Your task to perform on an android device: Add logitech g pro to the cart on amazon Image 0: 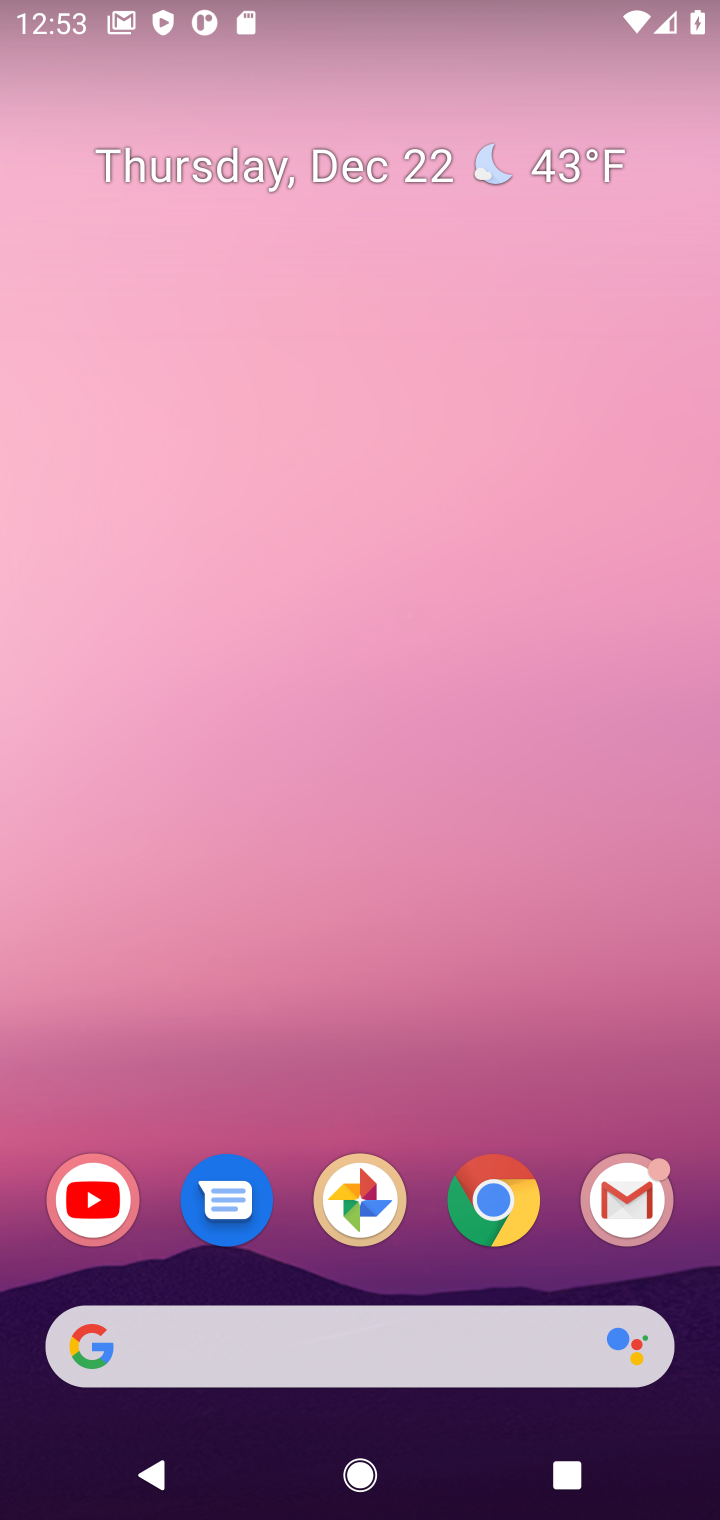
Step 0: click (489, 1210)
Your task to perform on an android device: Add logitech g pro to the cart on amazon Image 1: 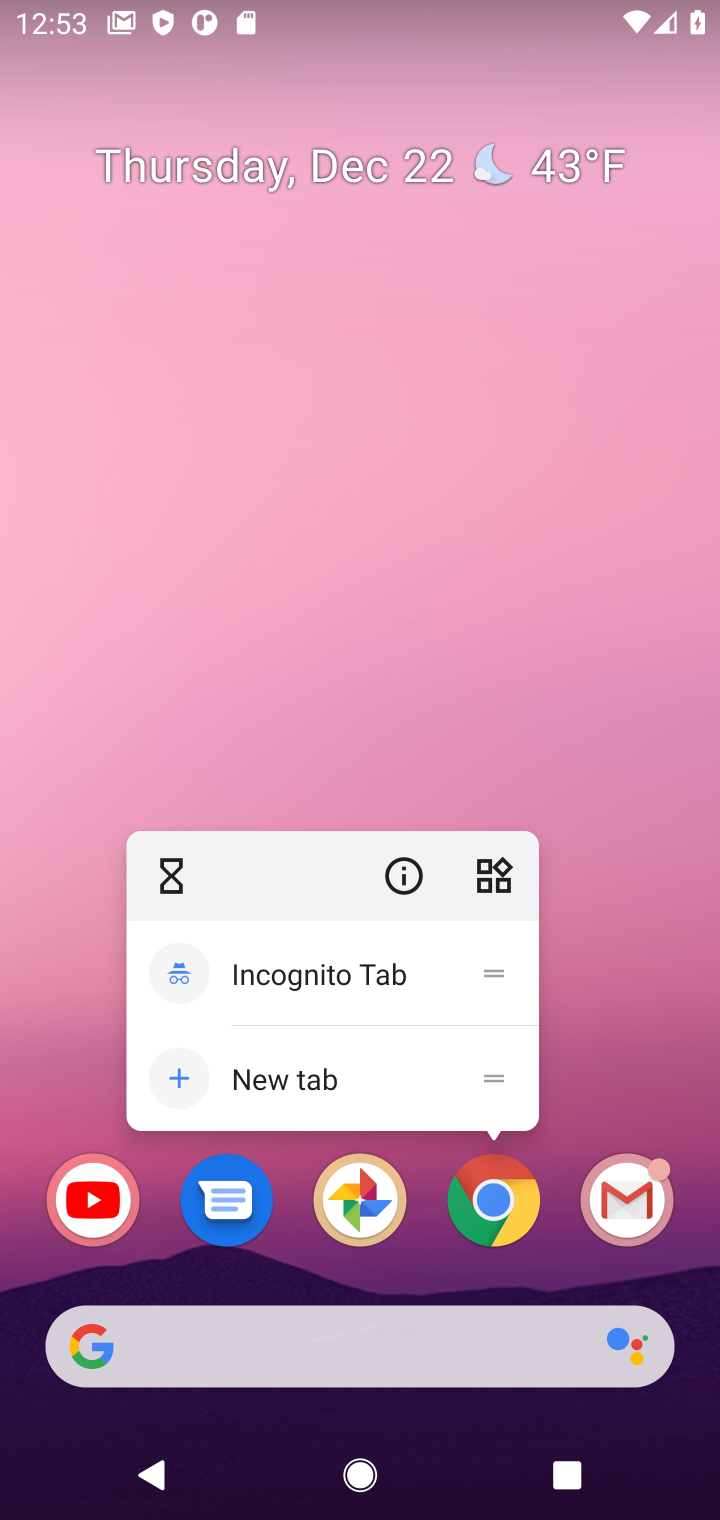
Step 1: click (489, 1210)
Your task to perform on an android device: Add logitech g pro to the cart on amazon Image 2: 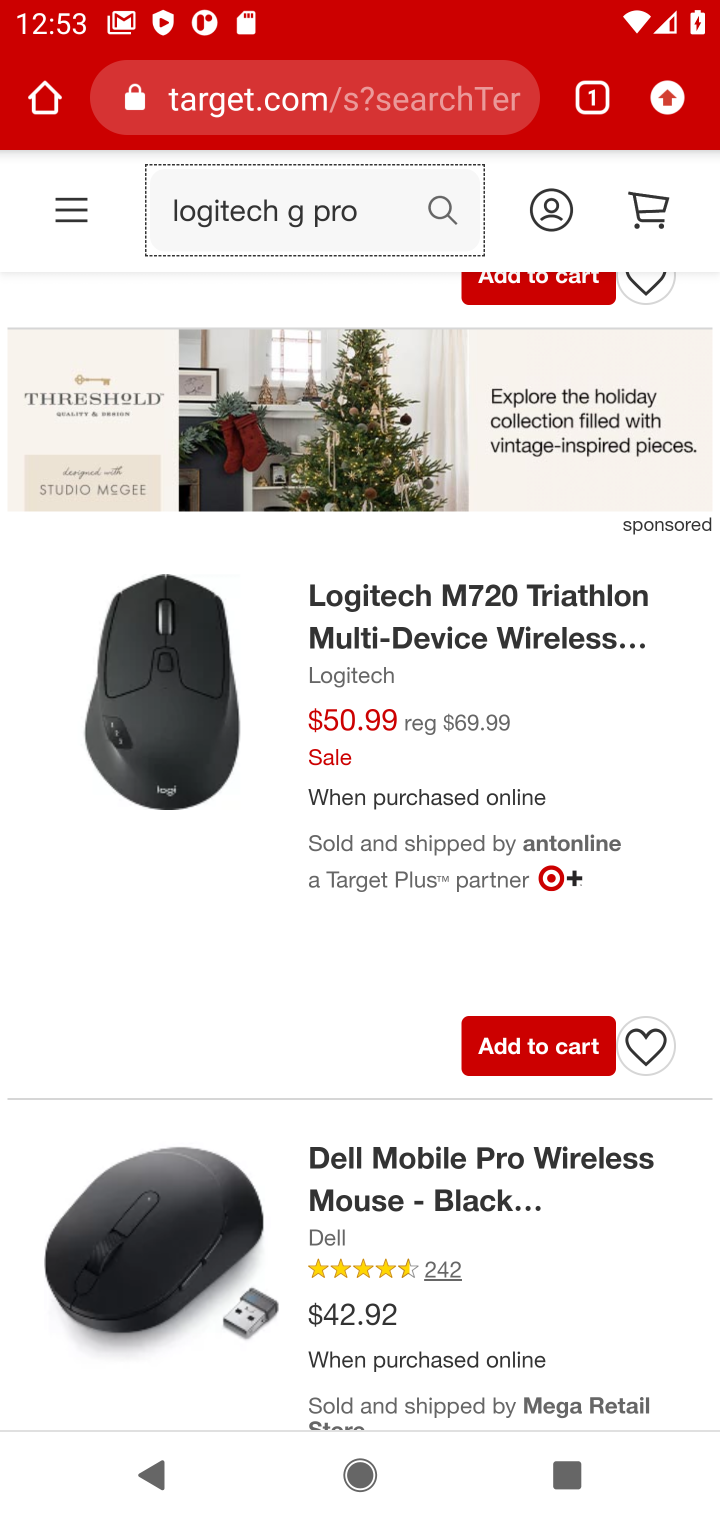
Step 2: click (243, 101)
Your task to perform on an android device: Add logitech g pro to the cart on amazon Image 3: 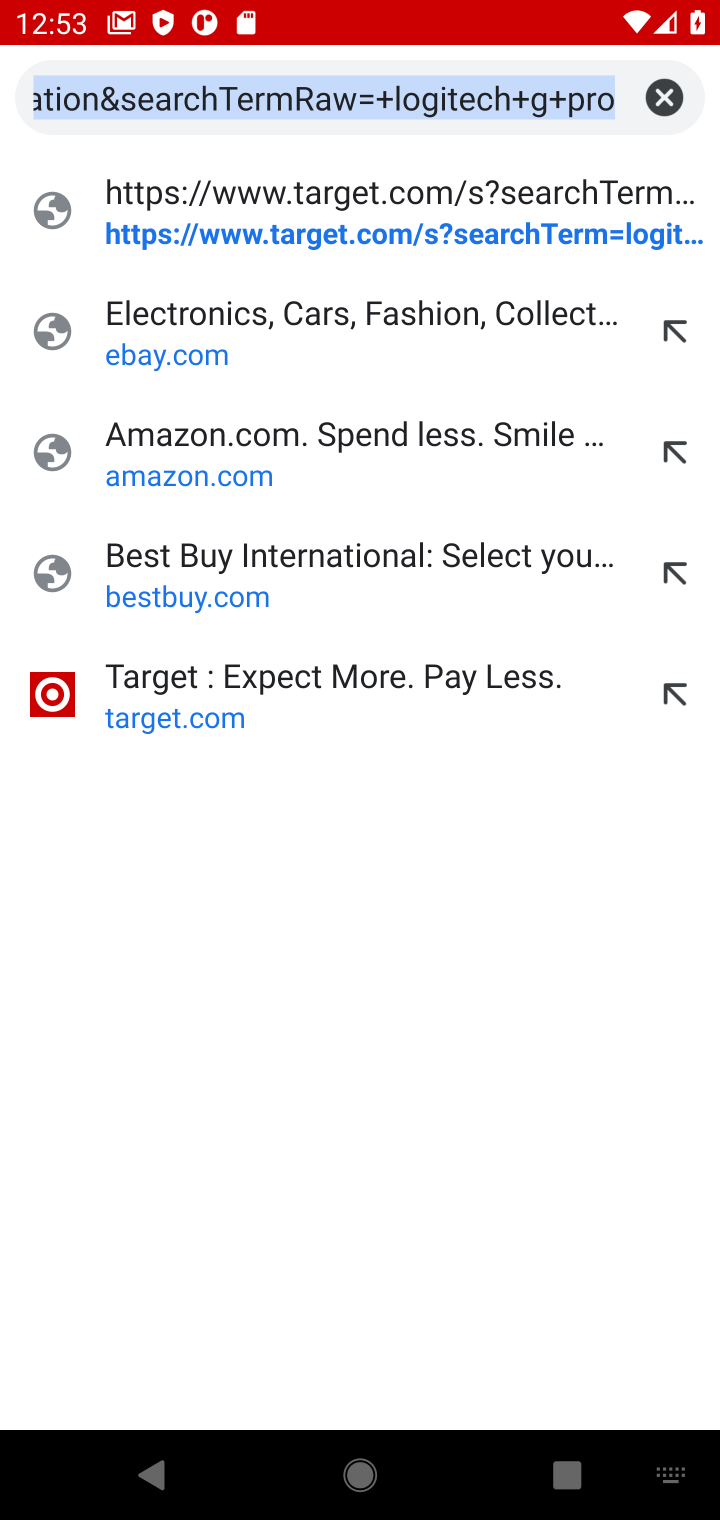
Step 3: click (170, 448)
Your task to perform on an android device: Add logitech g pro to the cart on amazon Image 4: 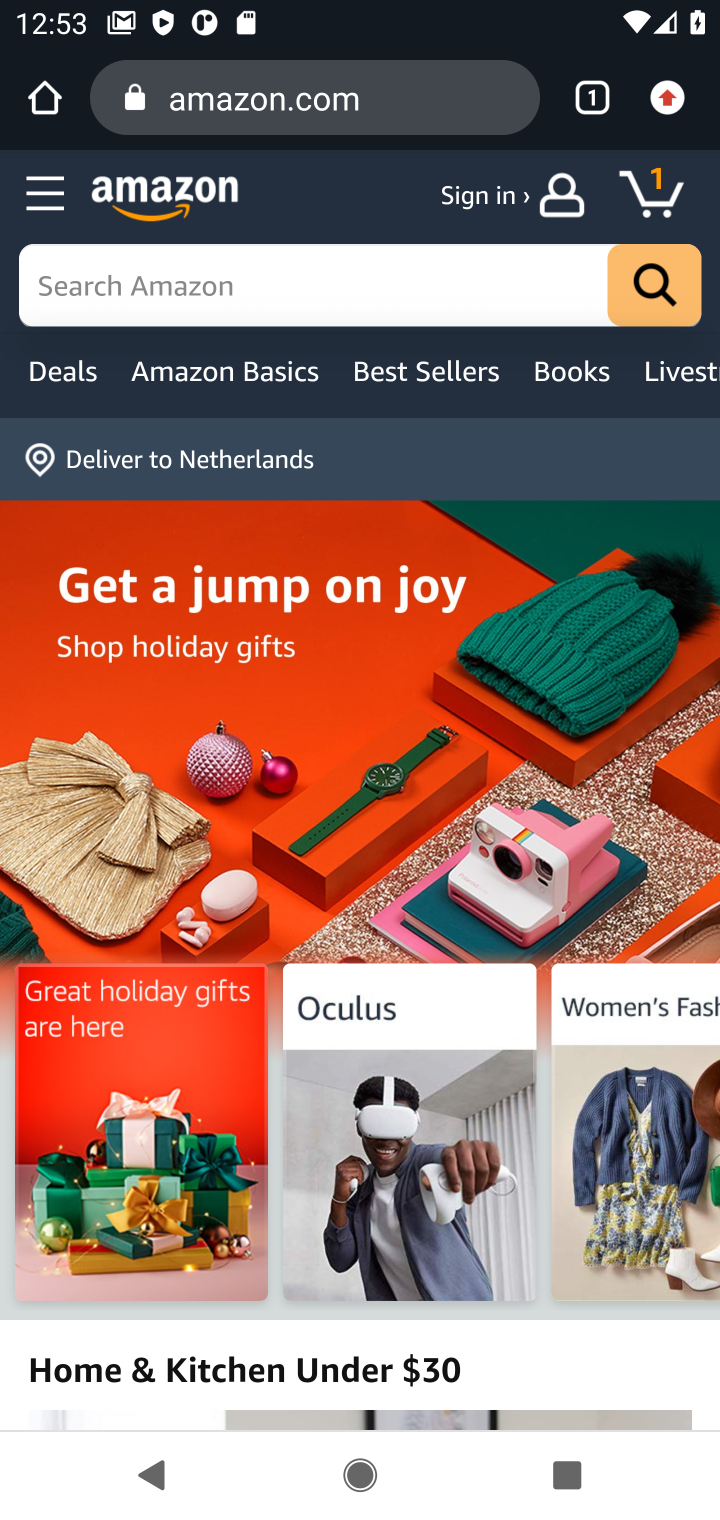
Step 4: click (334, 296)
Your task to perform on an android device: Add logitech g pro to the cart on amazon Image 5: 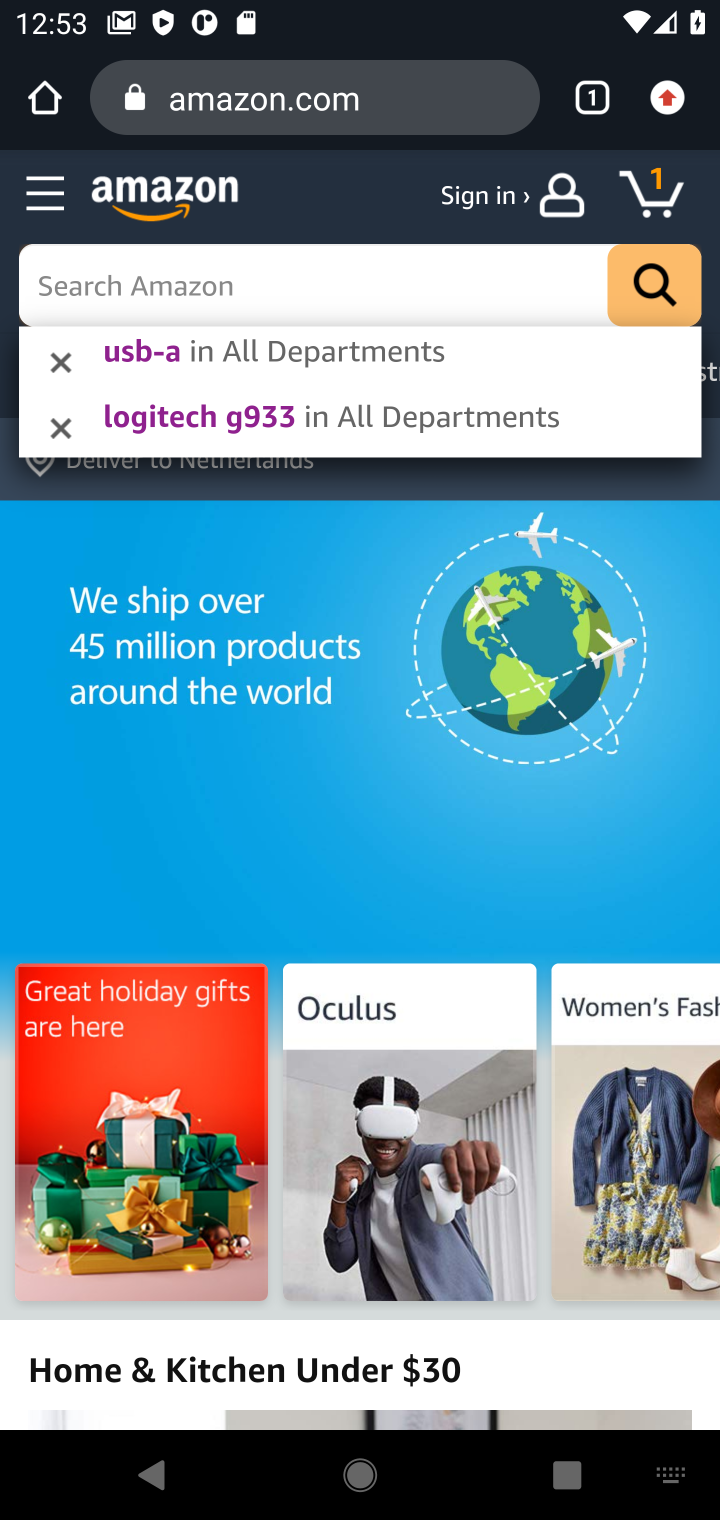
Step 5: type "logitech g pro"
Your task to perform on an android device: Add logitech g pro to the cart on amazon Image 6: 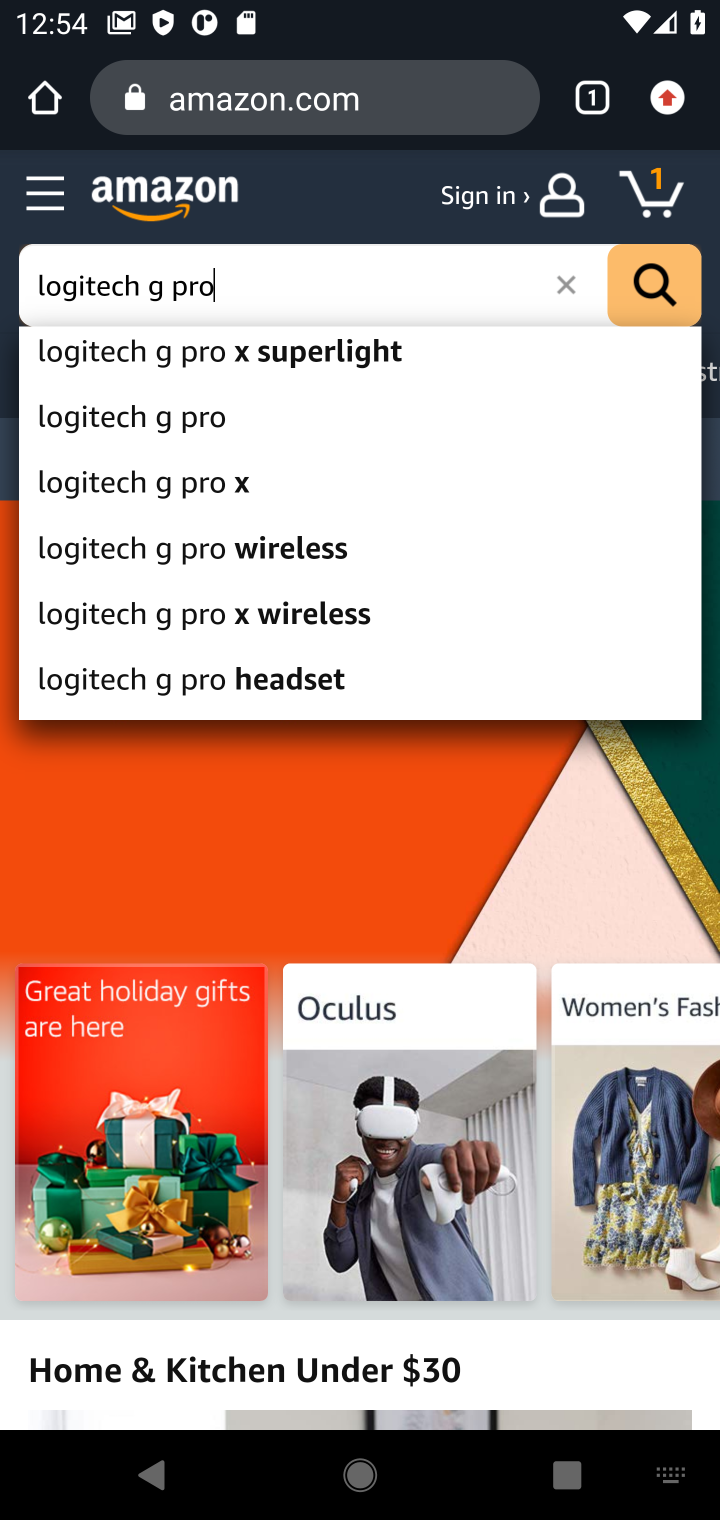
Step 6: click (189, 420)
Your task to perform on an android device: Add logitech g pro to the cart on amazon Image 7: 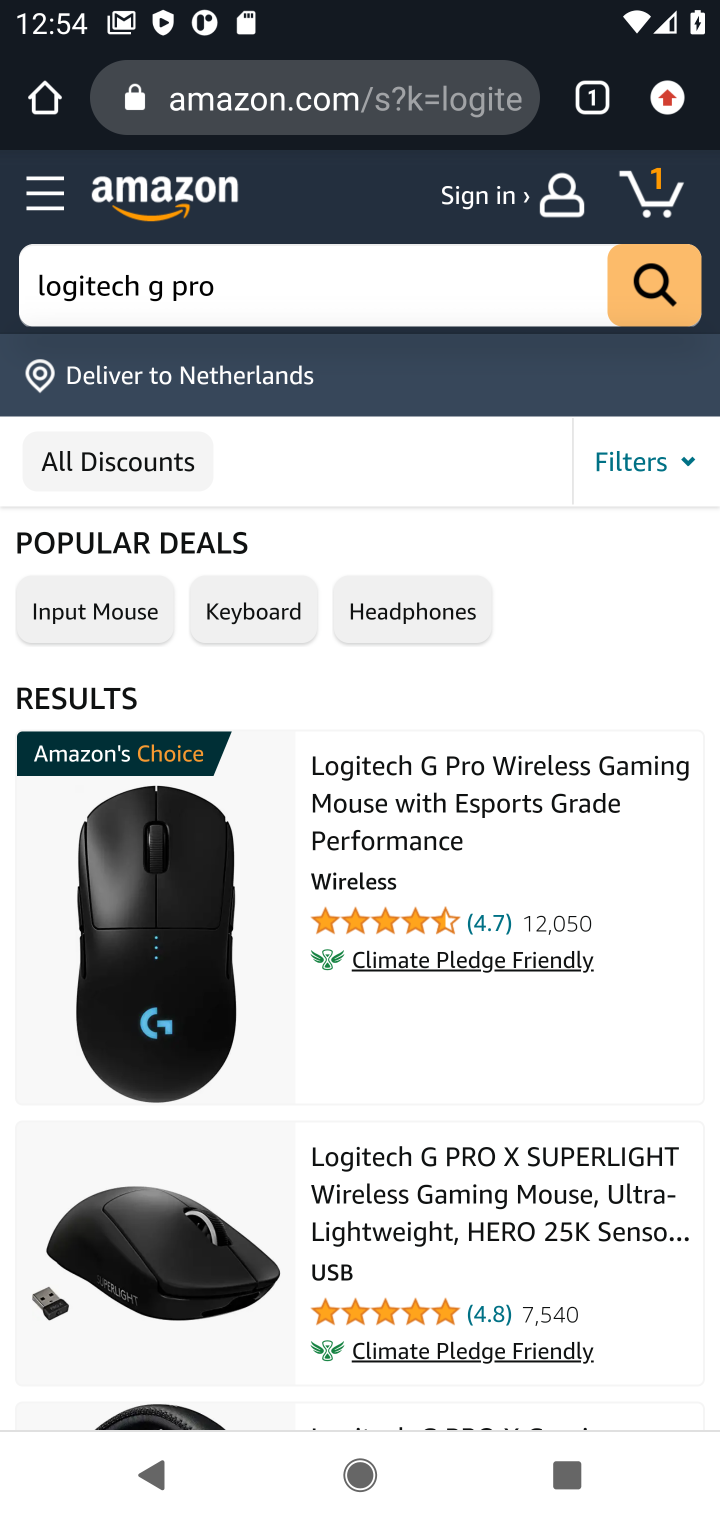
Step 7: drag from (263, 1003) to (273, 715)
Your task to perform on an android device: Add logitech g pro to the cart on amazon Image 8: 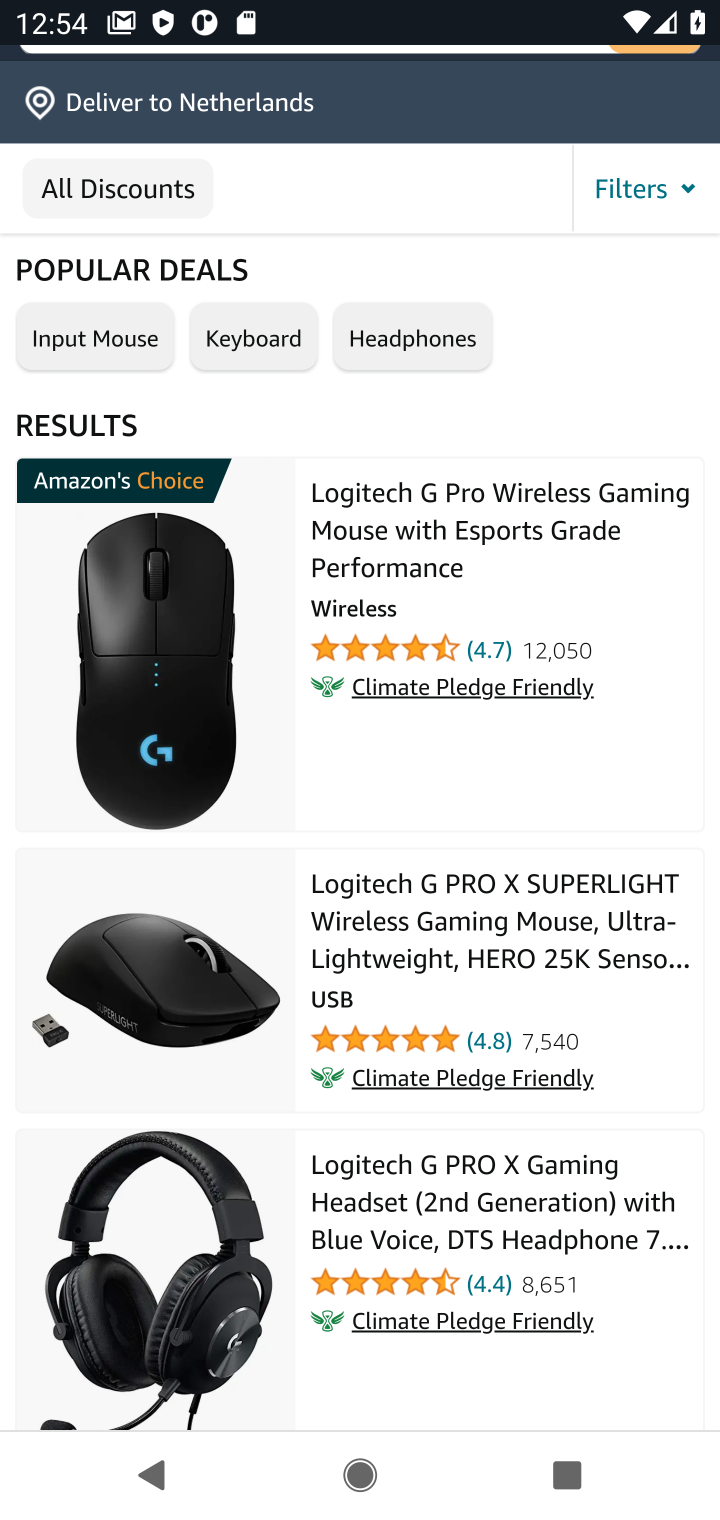
Step 8: drag from (307, 1076) to (305, 639)
Your task to perform on an android device: Add logitech g pro to the cart on amazon Image 9: 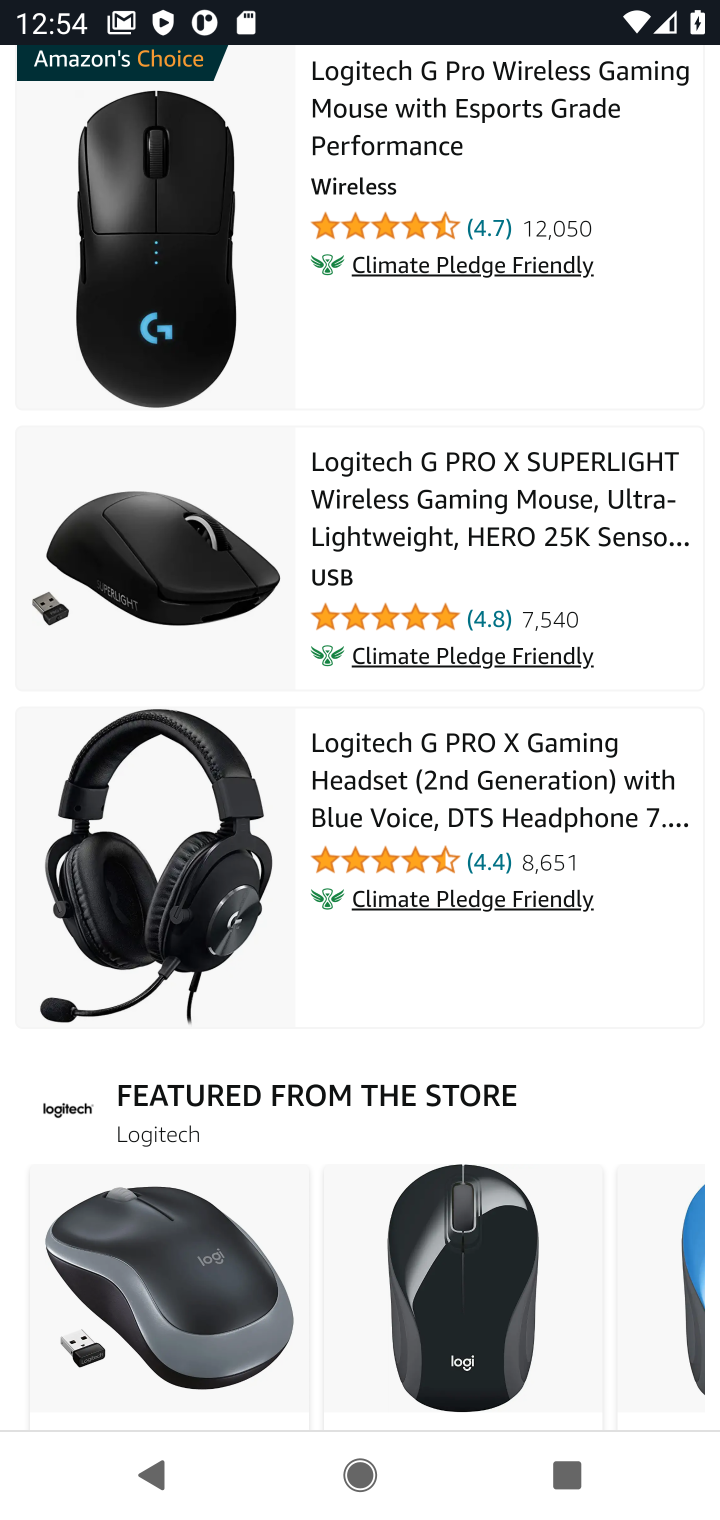
Step 9: drag from (265, 1036) to (296, 470)
Your task to perform on an android device: Add logitech g pro to the cart on amazon Image 10: 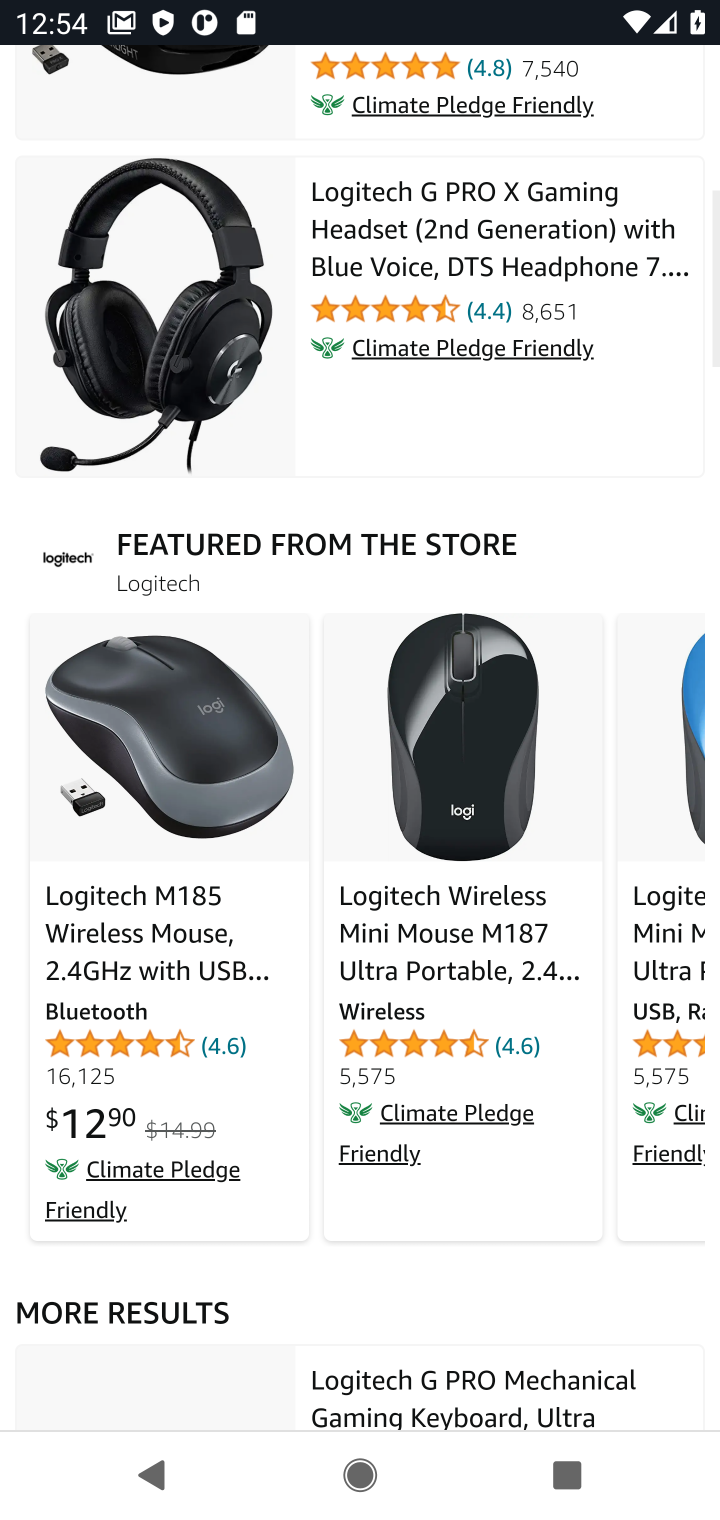
Step 10: drag from (265, 1080) to (292, 523)
Your task to perform on an android device: Add logitech g pro to the cart on amazon Image 11: 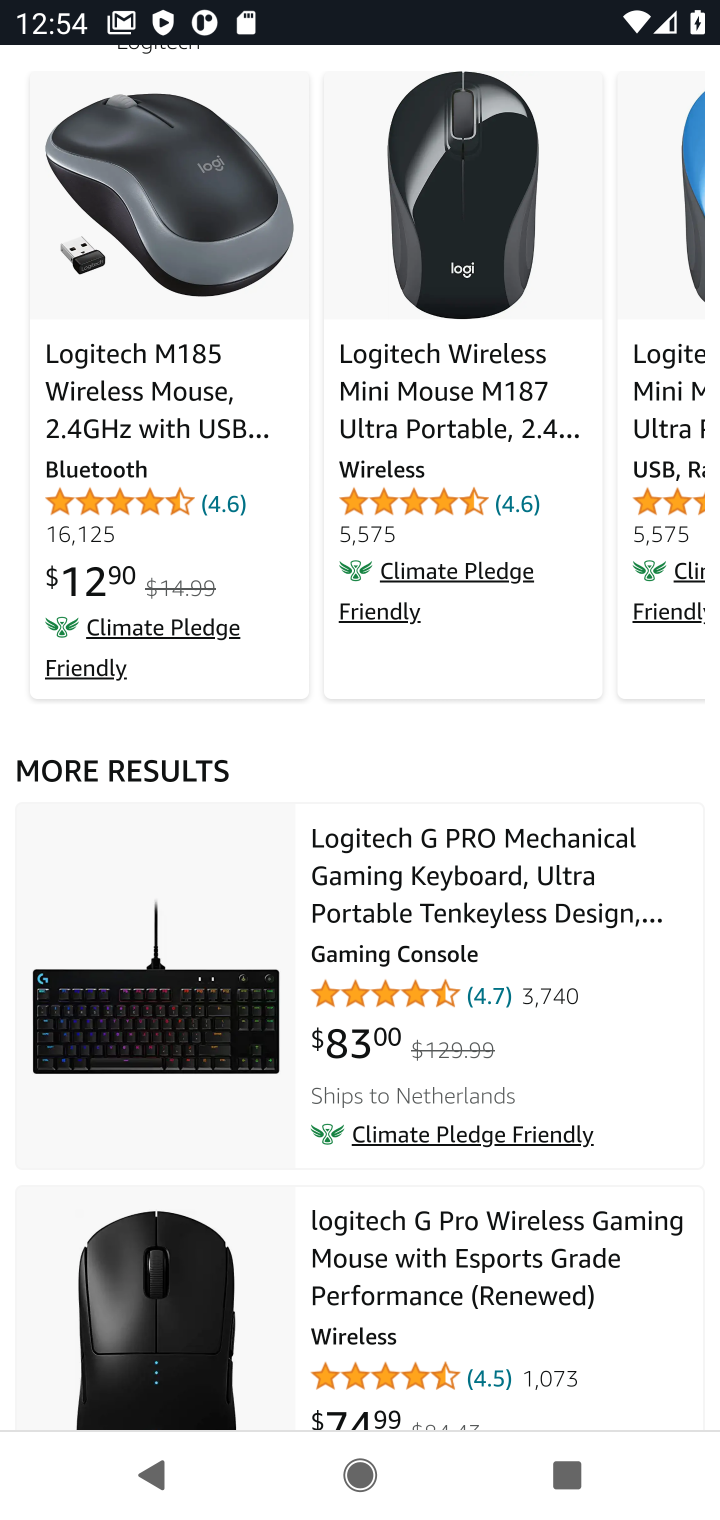
Step 11: click (392, 900)
Your task to perform on an android device: Add logitech g pro to the cart on amazon Image 12: 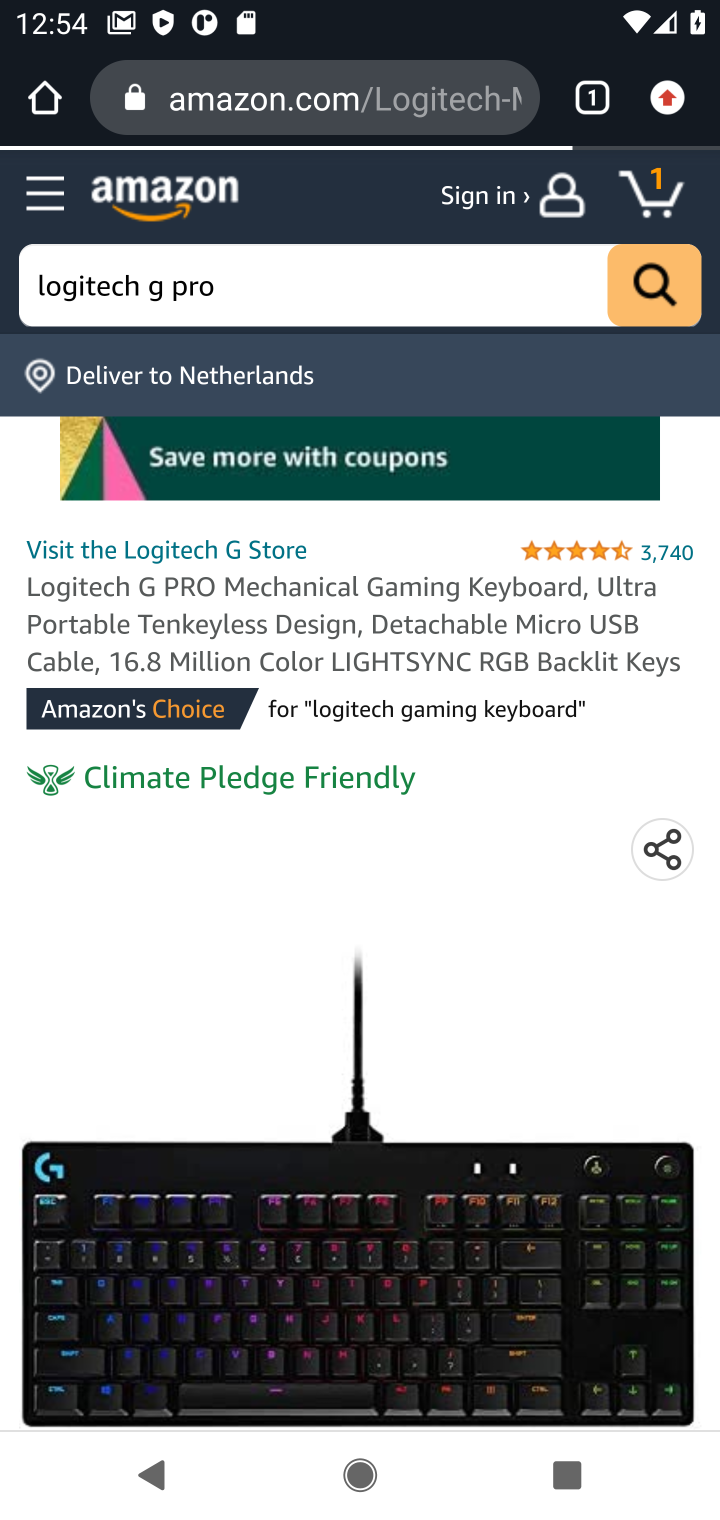
Step 12: drag from (347, 1004) to (357, 655)
Your task to perform on an android device: Add logitech g pro to the cart on amazon Image 13: 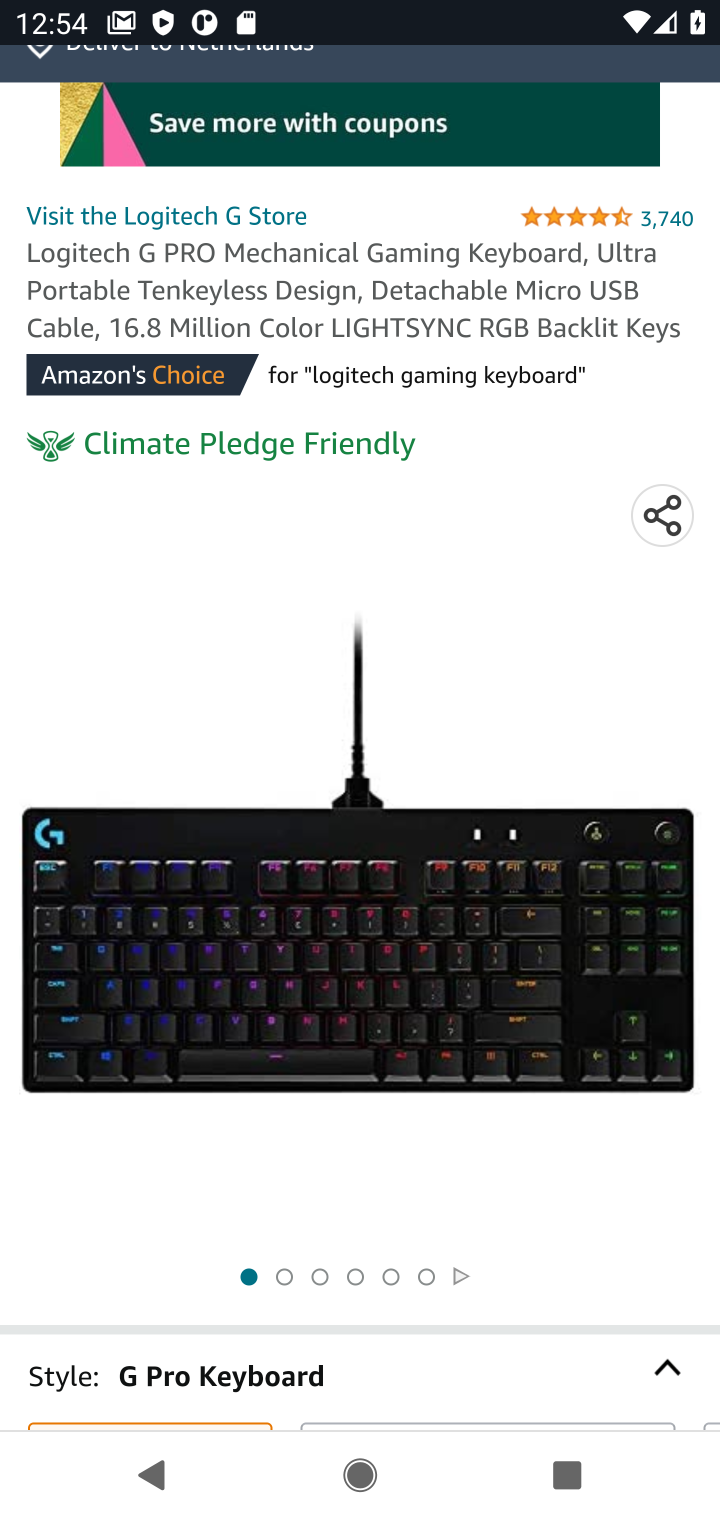
Step 13: drag from (290, 1003) to (277, 574)
Your task to perform on an android device: Add logitech g pro to the cart on amazon Image 14: 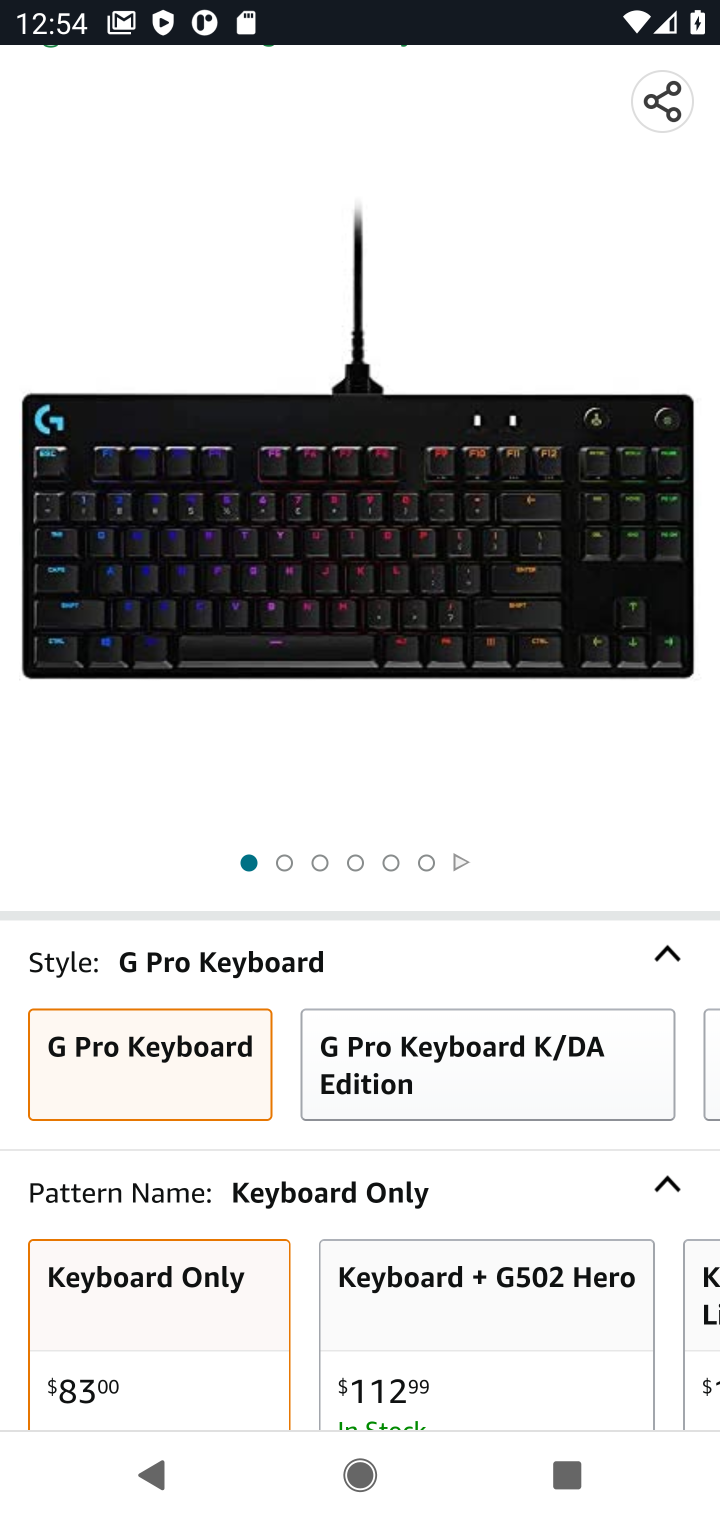
Step 14: drag from (298, 942) to (312, 601)
Your task to perform on an android device: Add logitech g pro to the cart on amazon Image 15: 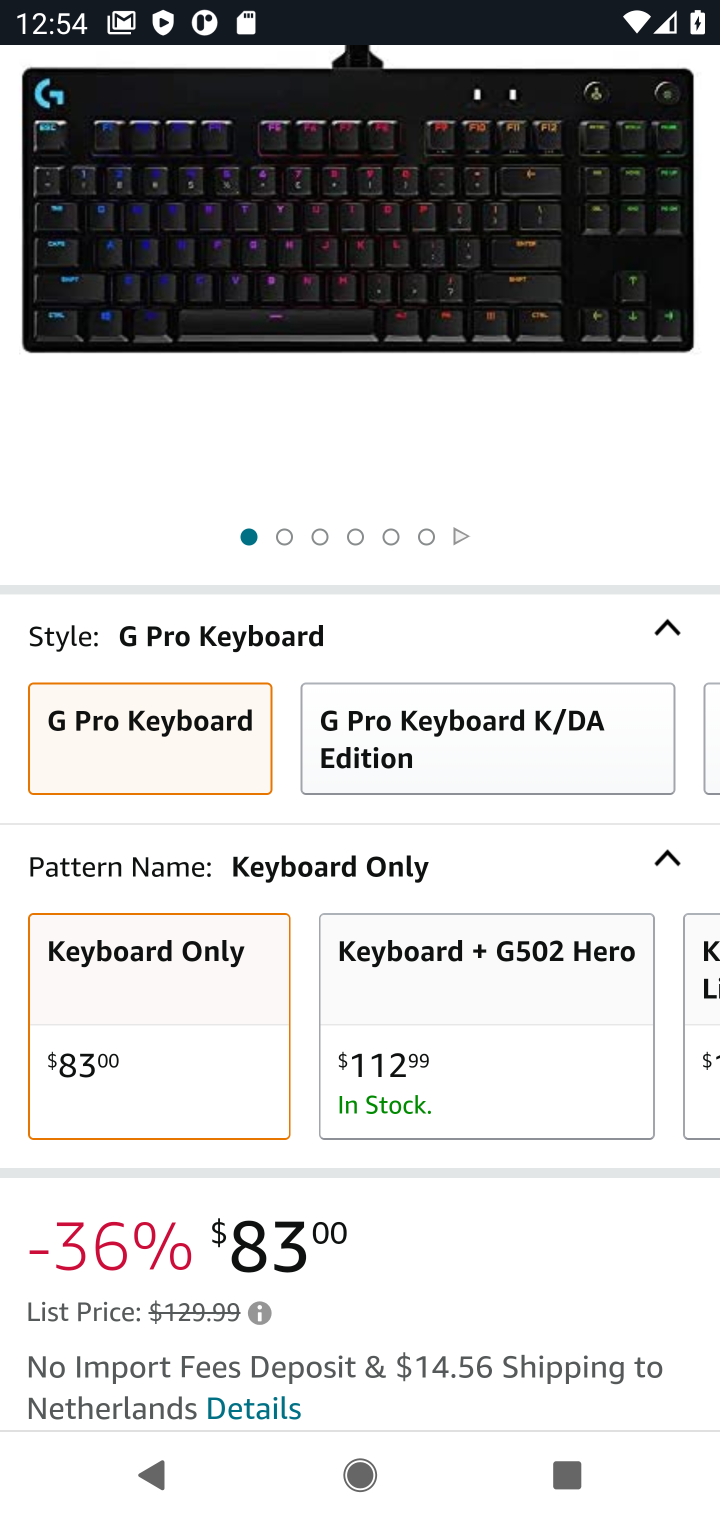
Step 15: drag from (273, 1107) to (265, 543)
Your task to perform on an android device: Add logitech g pro to the cart on amazon Image 16: 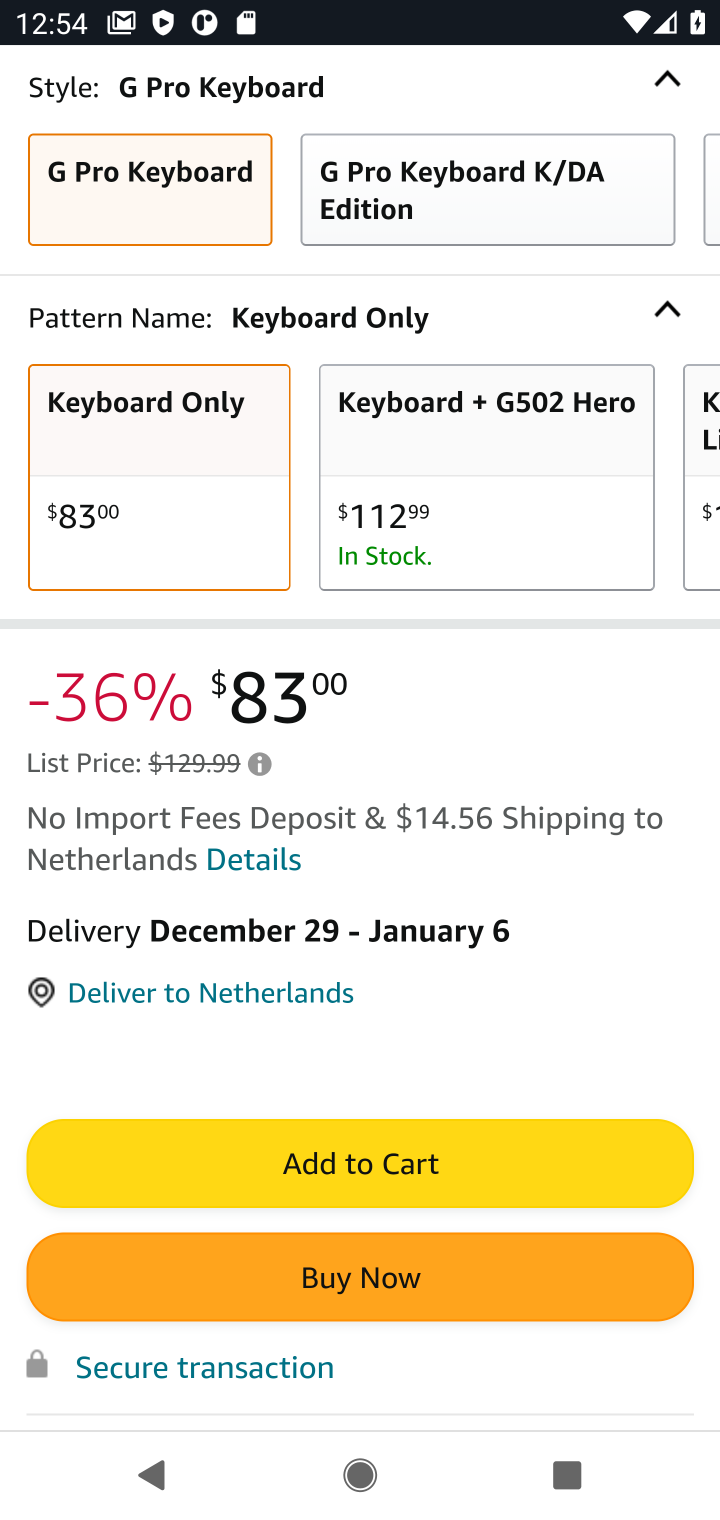
Step 16: click (338, 1163)
Your task to perform on an android device: Add logitech g pro to the cart on amazon Image 17: 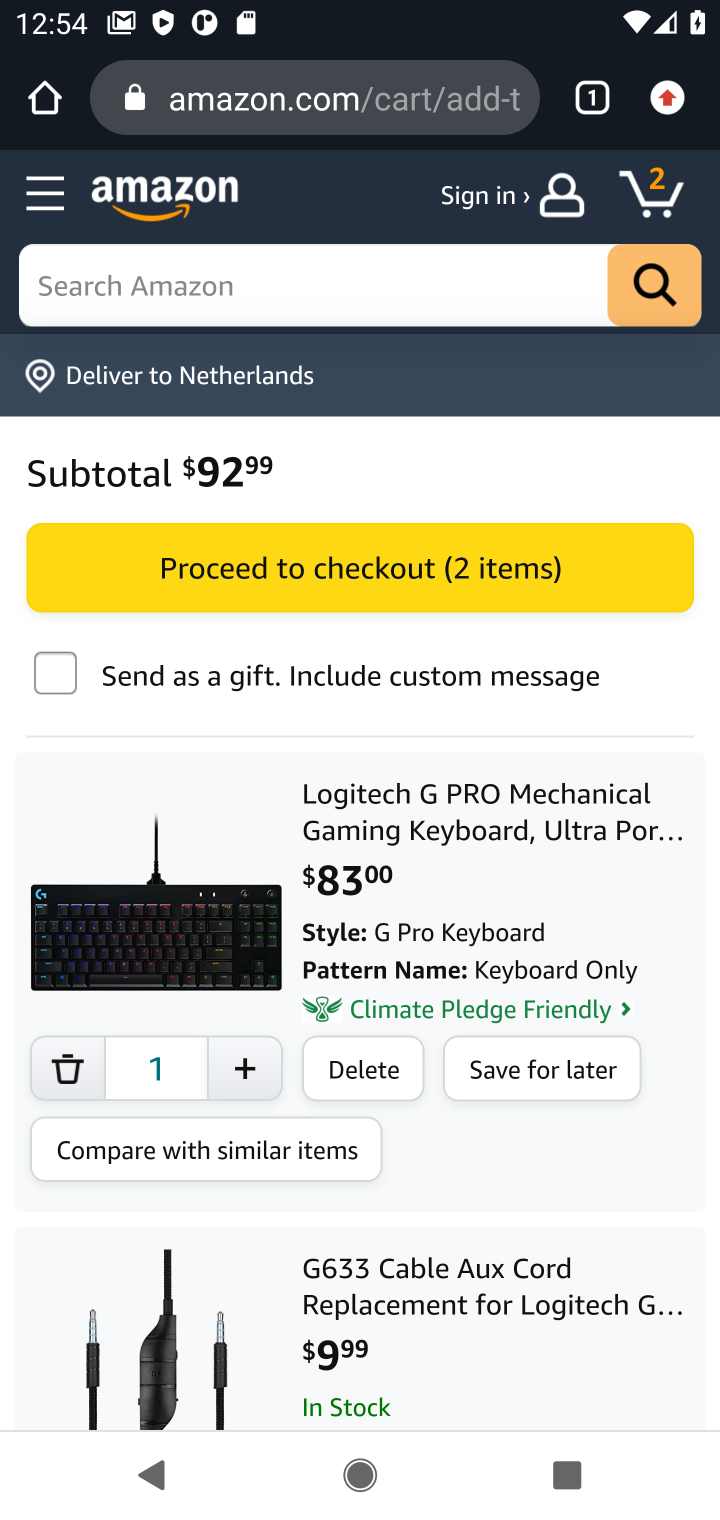
Step 17: task complete